Your task to perform on an android device: Turn on the flashlight Image 0: 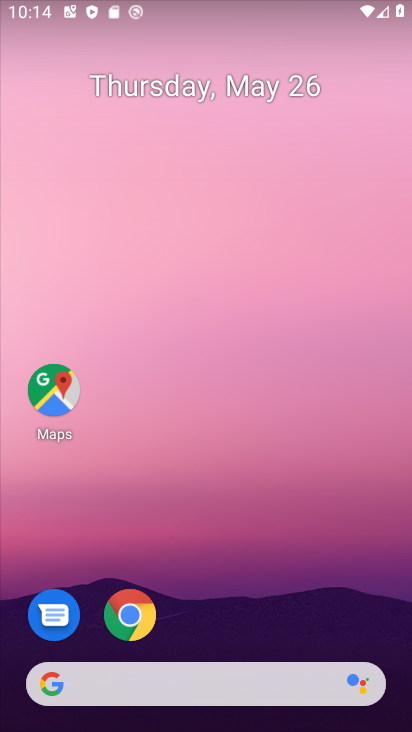
Step 0: press home button
Your task to perform on an android device: Turn on the flashlight Image 1: 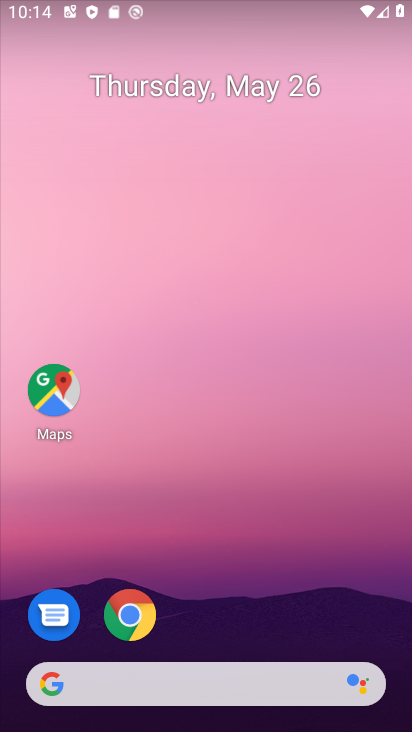
Step 1: drag from (287, 640) to (293, 95)
Your task to perform on an android device: Turn on the flashlight Image 2: 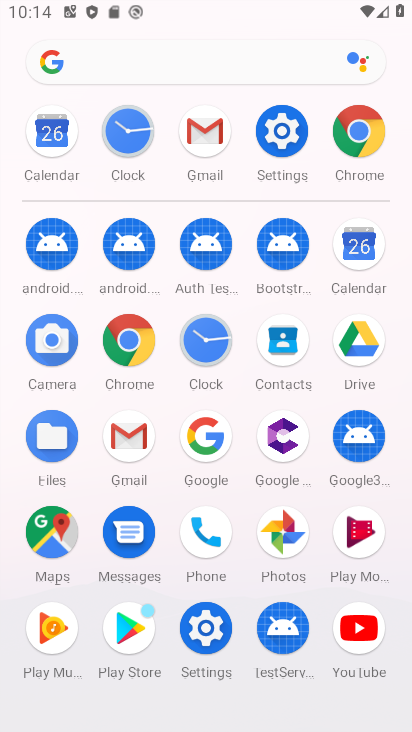
Step 2: click (297, 138)
Your task to perform on an android device: Turn on the flashlight Image 3: 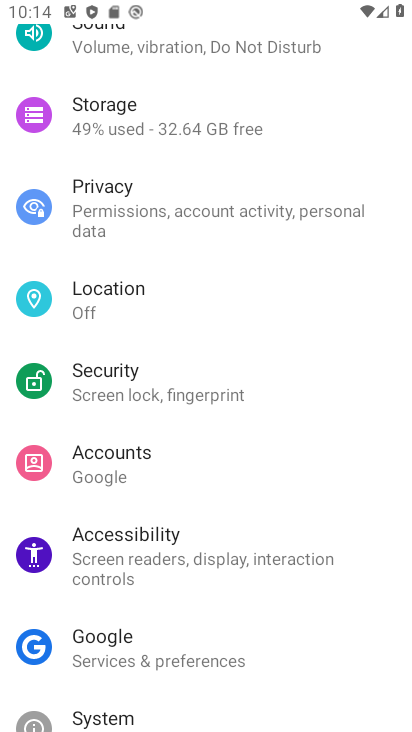
Step 3: task complete